Your task to perform on an android device: change notification settings in the gmail app Image 0: 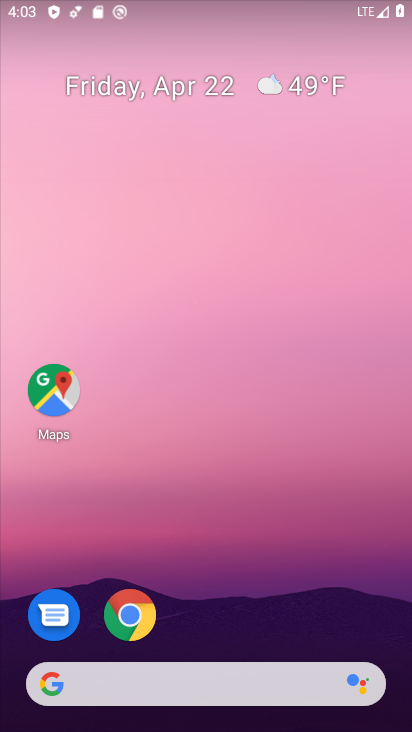
Step 0: drag from (283, 596) to (332, 106)
Your task to perform on an android device: change notification settings in the gmail app Image 1: 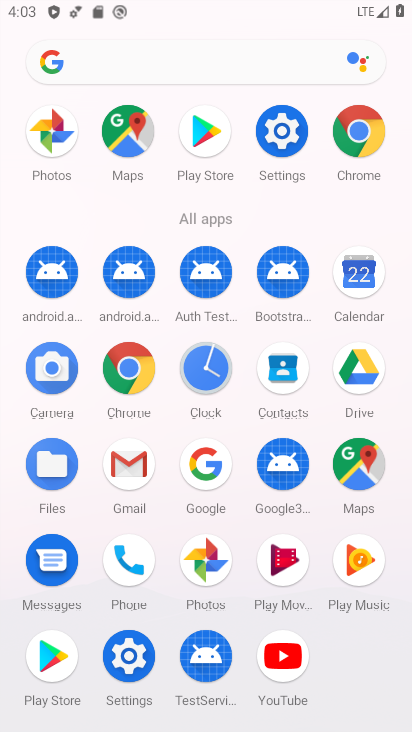
Step 1: click (128, 459)
Your task to perform on an android device: change notification settings in the gmail app Image 2: 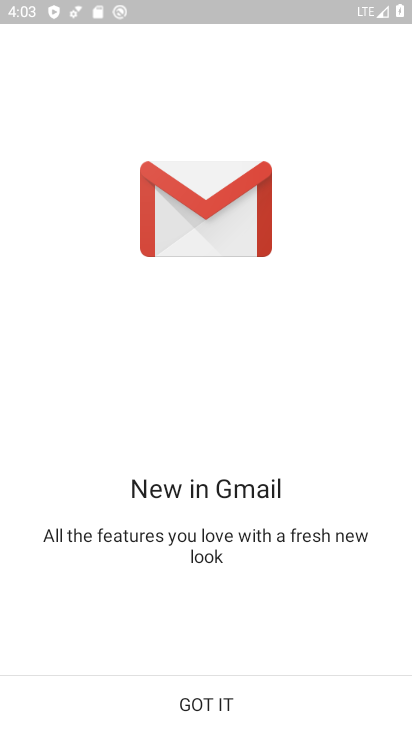
Step 2: click (209, 702)
Your task to perform on an android device: change notification settings in the gmail app Image 3: 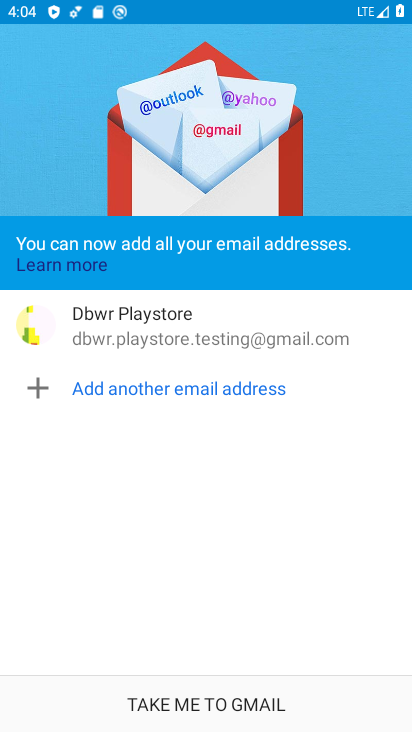
Step 3: click (176, 691)
Your task to perform on an android device: change notification settings in the gmail app Image 4: 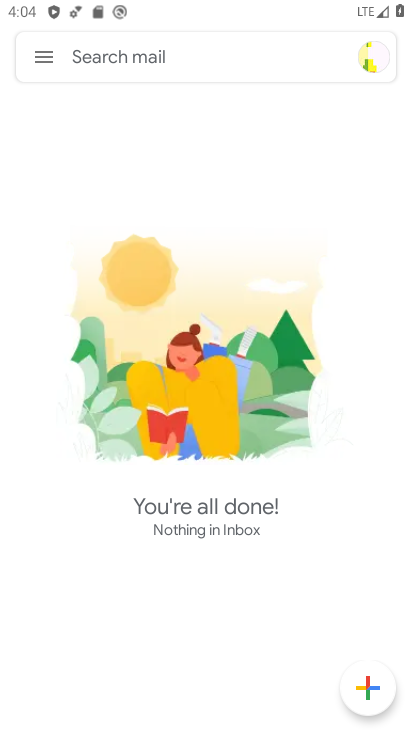
Step 4: click (38, 54)
Your task to perform on an android device: change notification settings in the gmail app Image 5: 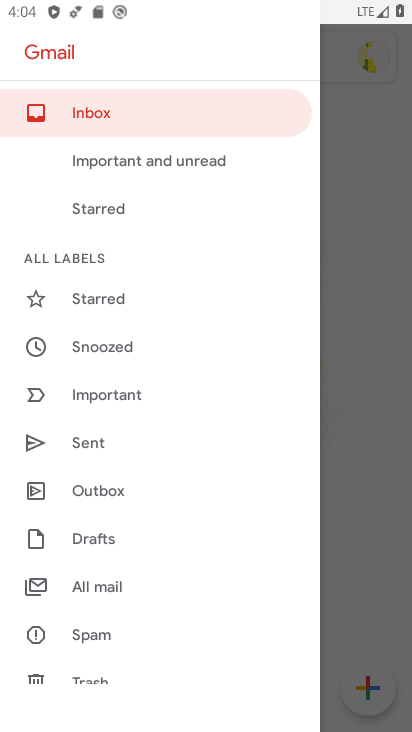
Step 5: drag from (156, 640) to (148, 222)
Your task to perform on an android device: change notification settings in the gmail app Image 6: 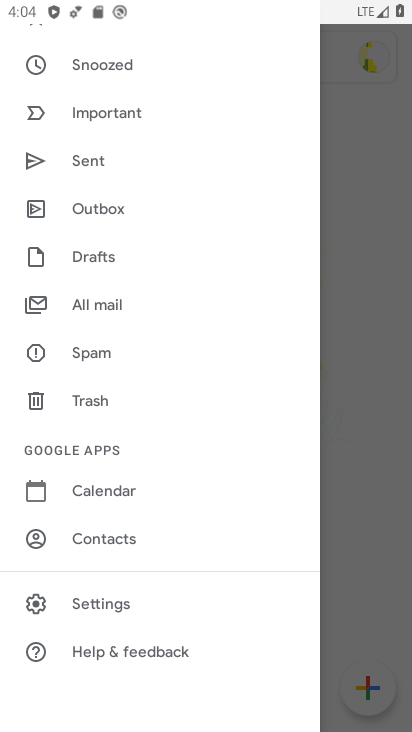
Step 6: click (124, 601)
Your task to perform on an android device: change notification settings in the gmail app Image 7: 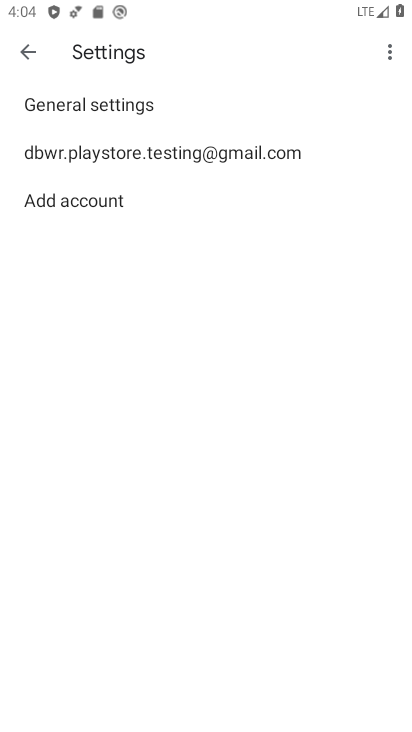
Step 7: click (185, 153)
Your task to perform on an android device: change notification settings in the gmail app Image 8: 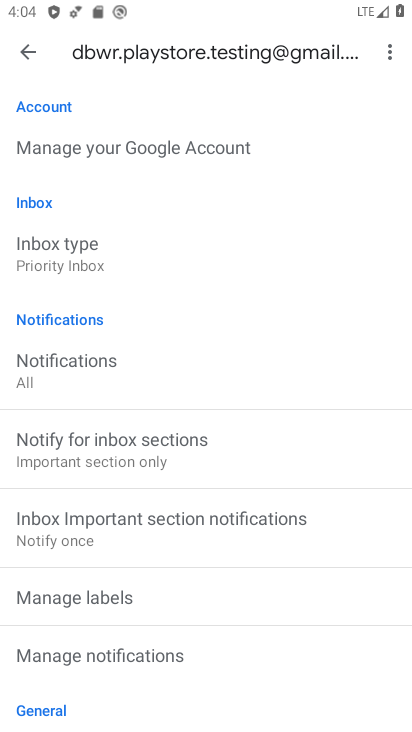
Step 8: click (71, 369)
Your task to perform on an android device: change notification settings in the gmail app Image 9: 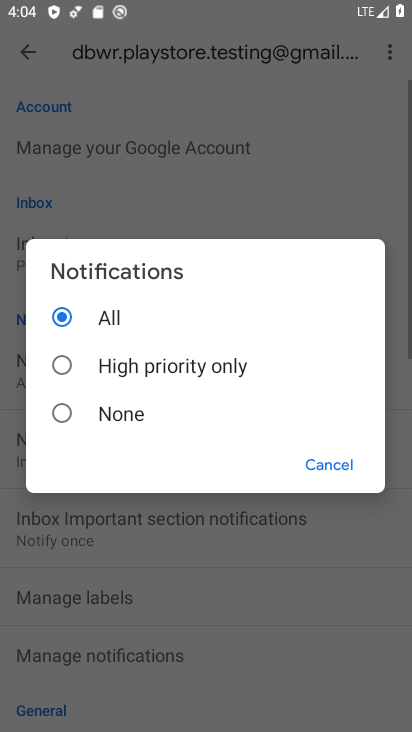
Step 9: click (104, 421)
Your task to perform on an android device: change notification settings in the gmail app Image 10: 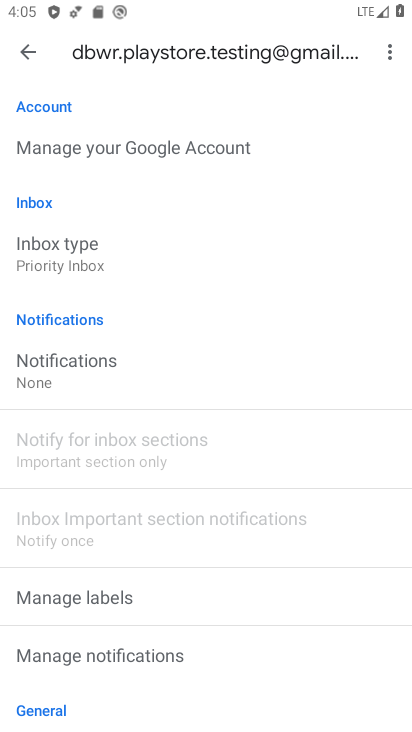
Step 10: click (132, 662)
Your task to perform on an android device: change notification settings in the gmail app Image 11: 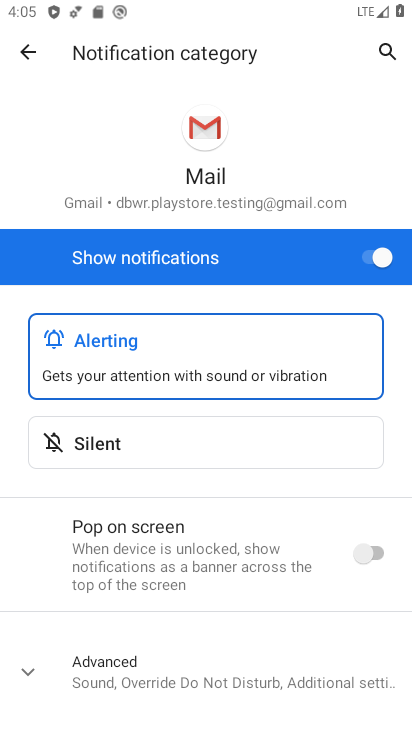
Step 11: click (371, 556)
Your task to perform on an android device: change notification settings in the gmail app Image 12: 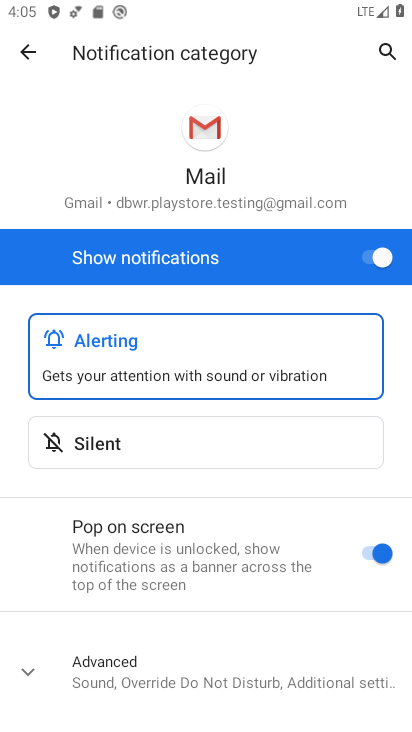
Step 12: task complete